Your task to perform on an android device: set the stopwatch Image 0: 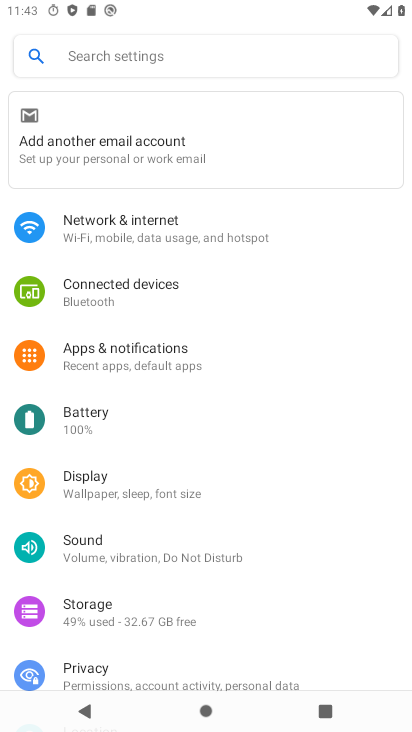
Step 0: press home button
Your task to perform on an android device: set the stopwatch Image 1: 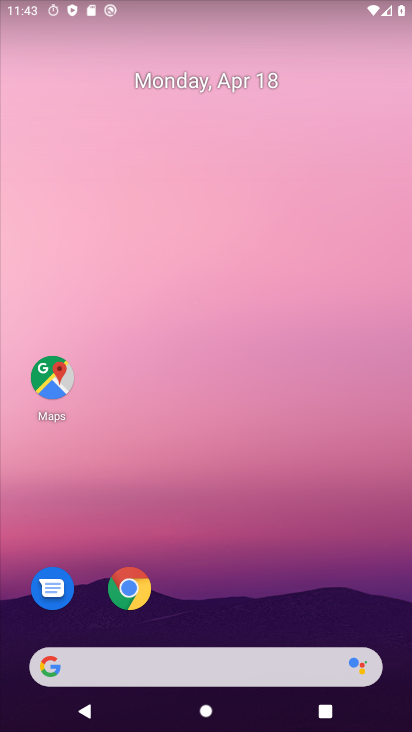
Step 1: drag from (224, 488) to (407, 245)
Your task to perform on an android device: set the stopwatch Image 2: 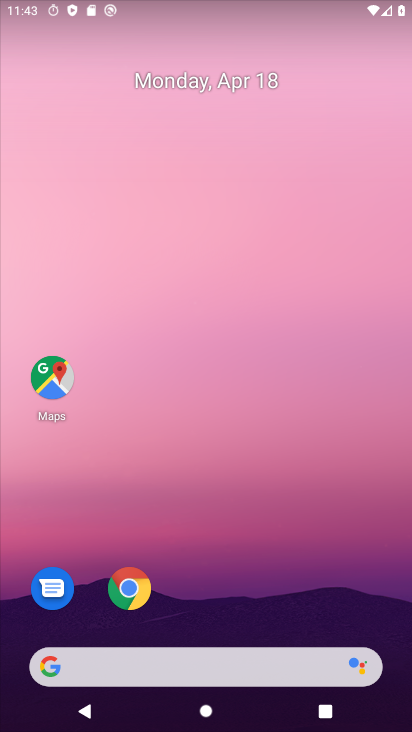
Step 2: drag from (195, 503) to (213, 38)
Your task to perform on an android device: set the stopwatch Image 3: 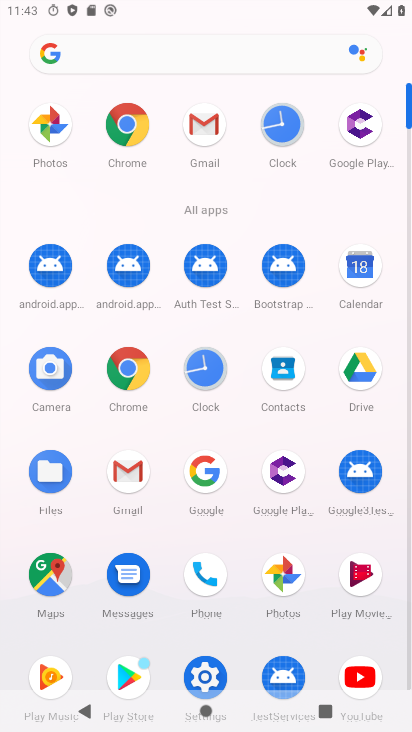
Step 3: click (285, 136)
Your task to perform on an android device: set the stopwatch Image 4: 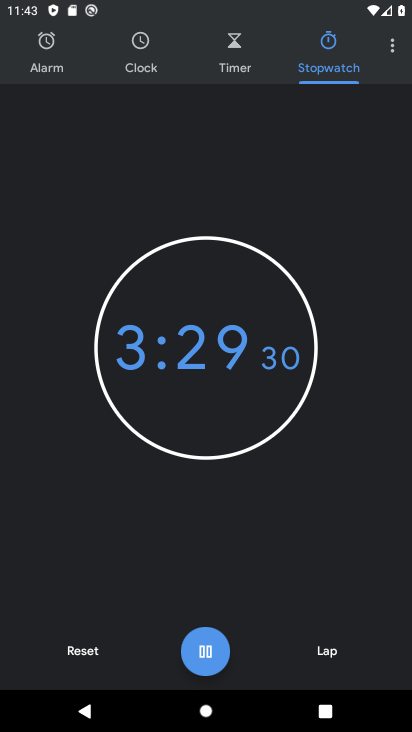
Step 4: click (199, 641)
Your task to perform on an android device: set the stopwatch Image 5: 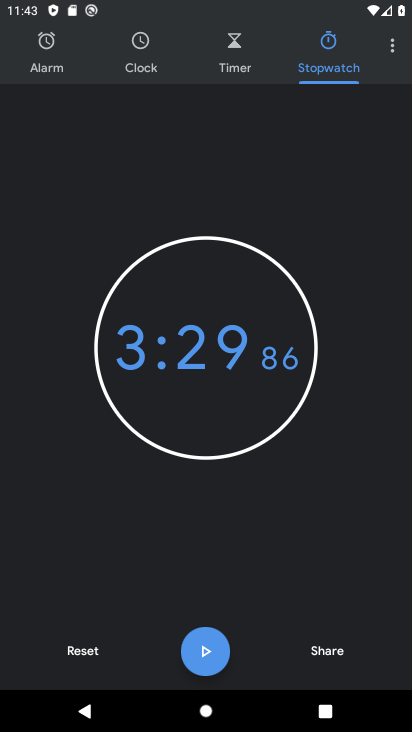
Step 5: click (201, 647)
Your task to perform on an android device: set the stopwatch Image 6: 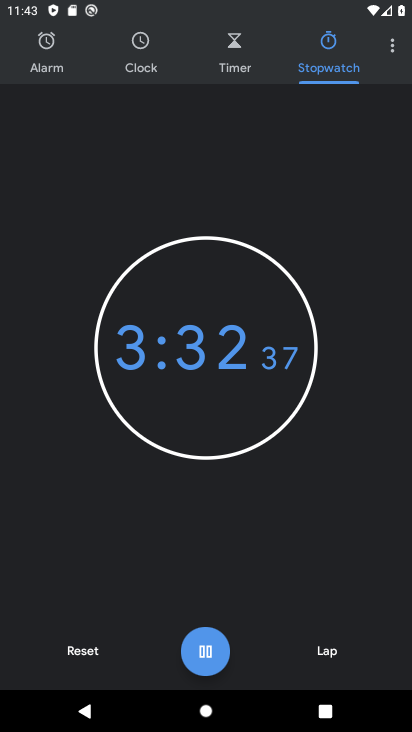
Step 6: task complete